Your task to perform on an android device: toggle pop-ups in chrome Image 0: 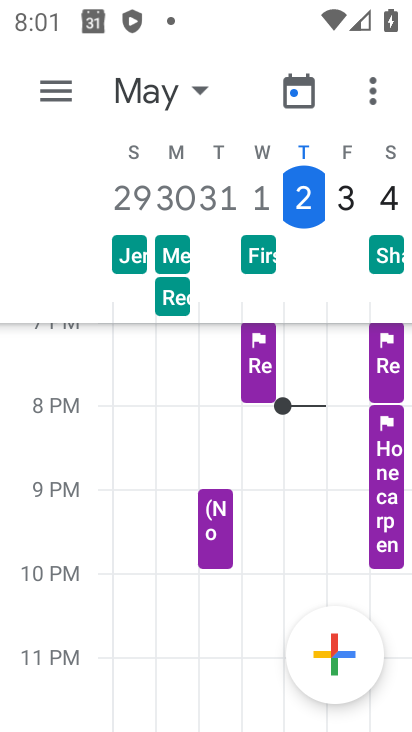
Step 0: press home button
Your task to perform on an android device: toggle pop-ups in chrome Image 1: 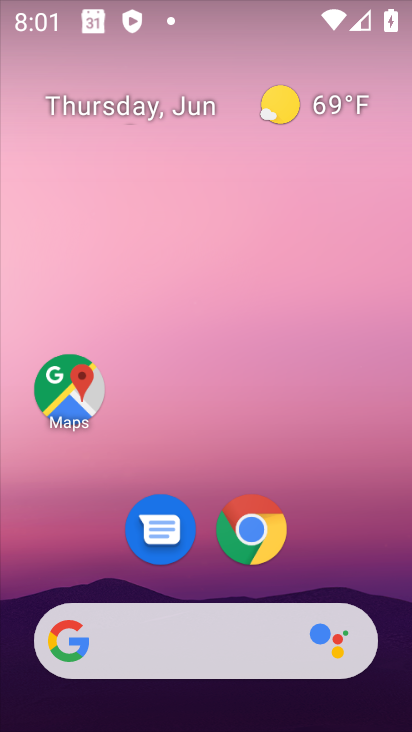
Step 1: click (261, 544)
Your task to perform on an android device: toggle pop-ups in chrome Image 2: 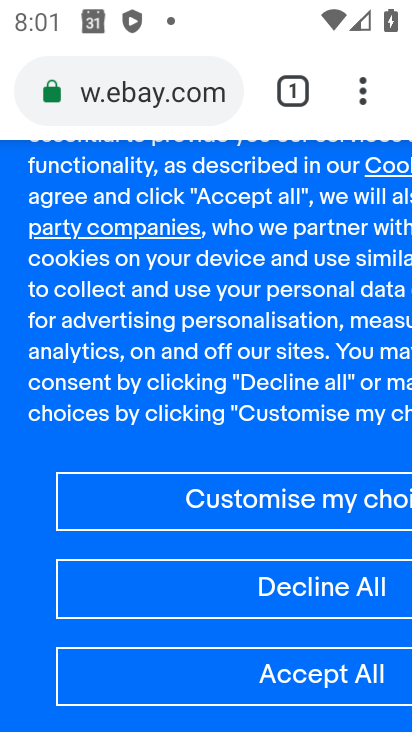
Step 2: click (365, 103)
Your task to perform on an android device: toggle pop-ups in chrome Image 3: 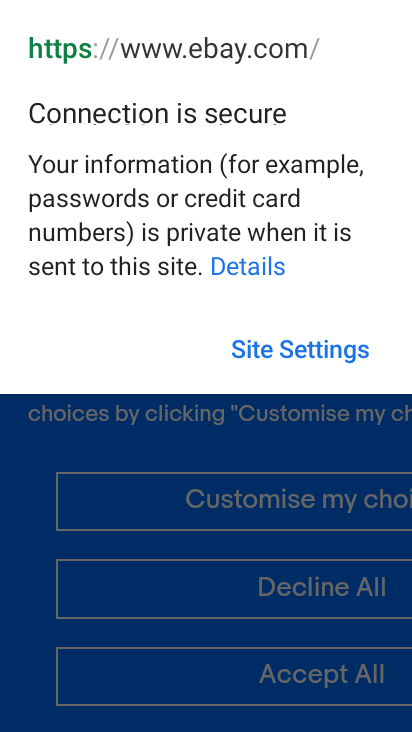
Step 3: click (391, 481)
Your task to perform on an android device: toggle pop-ups in chrome Image 4: 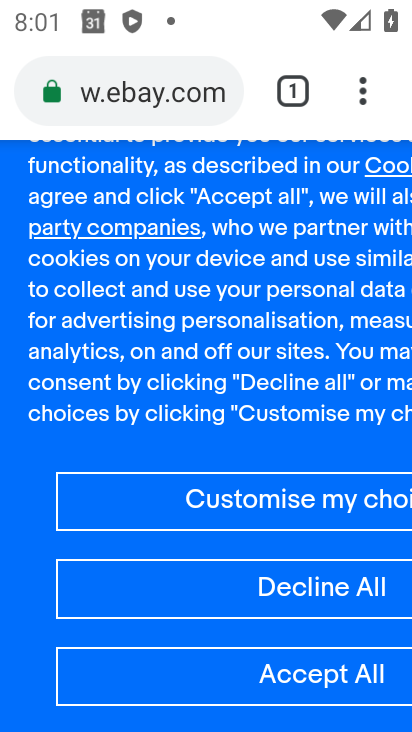
Step 4: click (357, 93)
Your task to perform on an android device: toggle pop-ups in chrome Image 5: 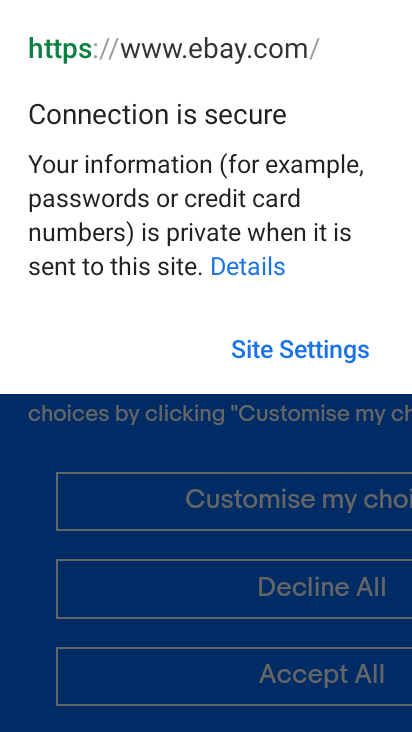
Step 5: click (360, 440)
Your task to perform on an android device: toggle pop-ups in chrome Image 6: 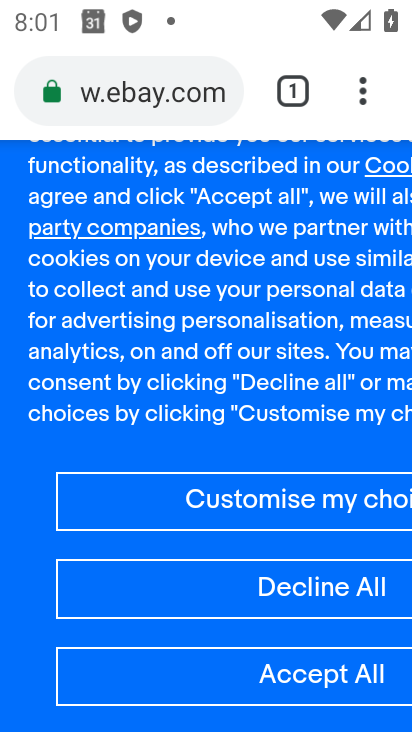
Step 6: drag from (363, 93) to (129, 538)
Your task to perform on an android device: toggle pop-ups in chrome Image 7: 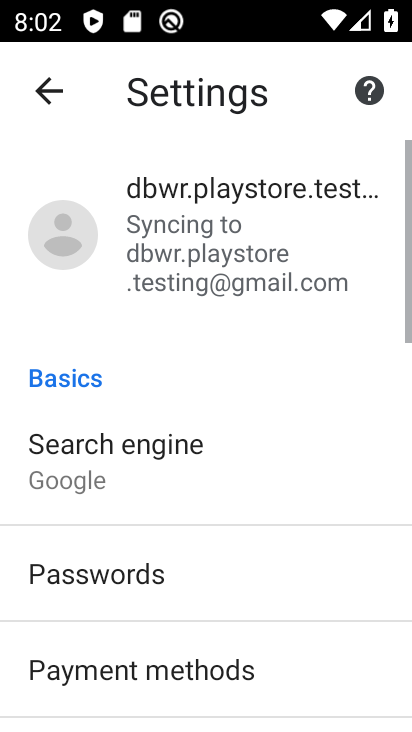
Step 7: drag from (140, 598) to (196, 173)
Your task to perform on an android device: toggle pop-ups in chrome Image 8: 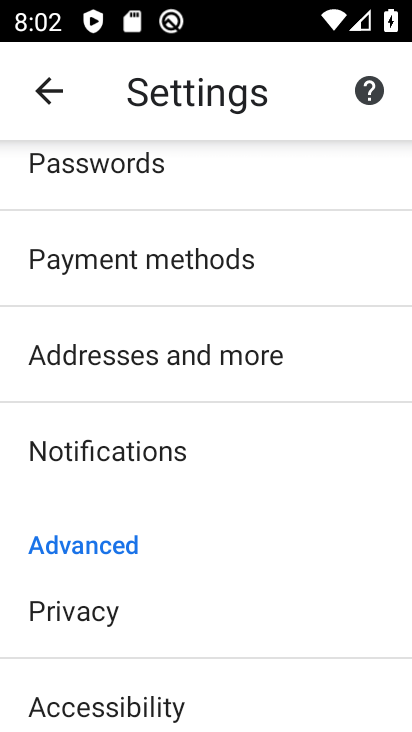
Step 8: drag from (226, 615) to (218, 291)
Your task to perform on an android device: toggle pop-ups in chrome Image 9: 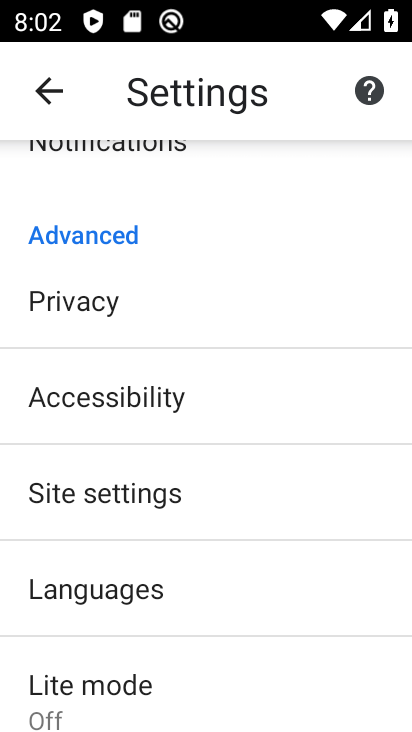
Step 9: click (121, 490)
Your task to perform on an android device: toggle pop-ups in chrome Image 10: 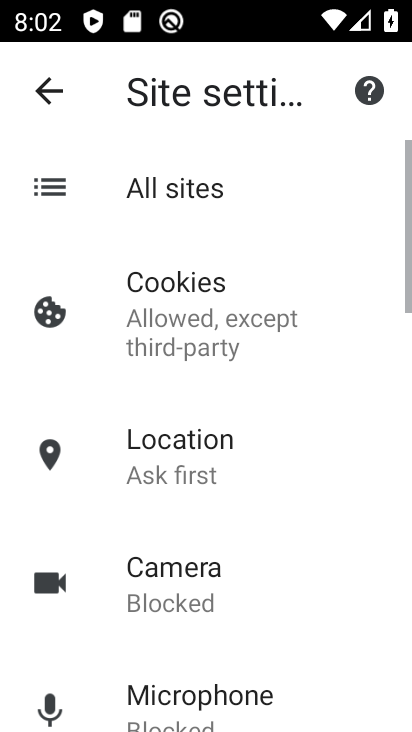
Step 10: drag from (173, 614) to (178, 230)
Your task to perform on an android device: toggle pop-ups in chrome Image 11: 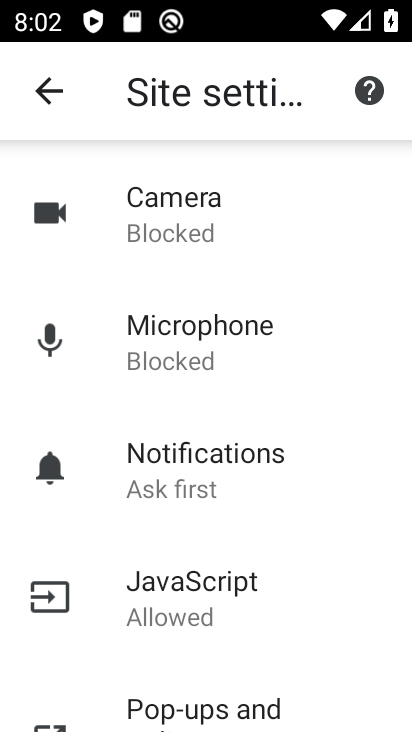
Step 11: click (191, 695)
Your task to perform on an android device: toggle pop-ups in chrome Image 12: 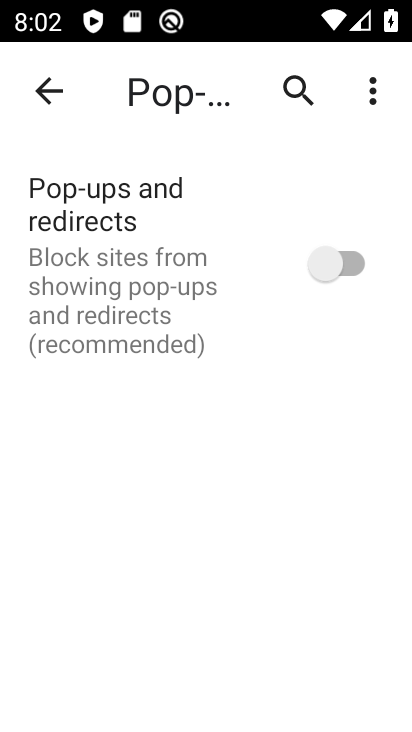
Step 12: click (357, 266)
Your task to perform on an android device: toggle pop-ups in chrome Image 13: 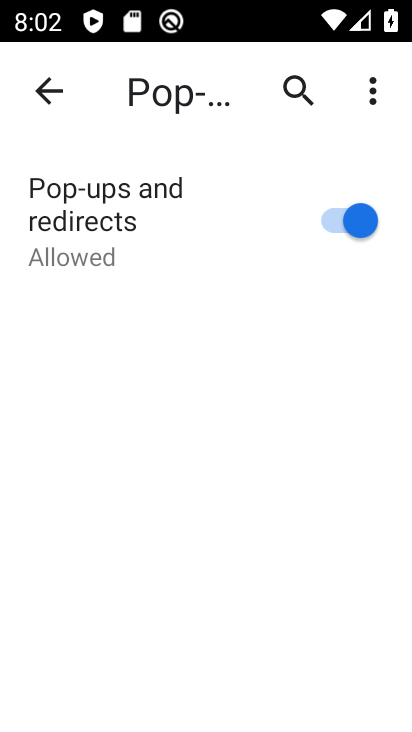
Step 13: task complete